Your task to perform on an android device: Go to display settings Image 0: 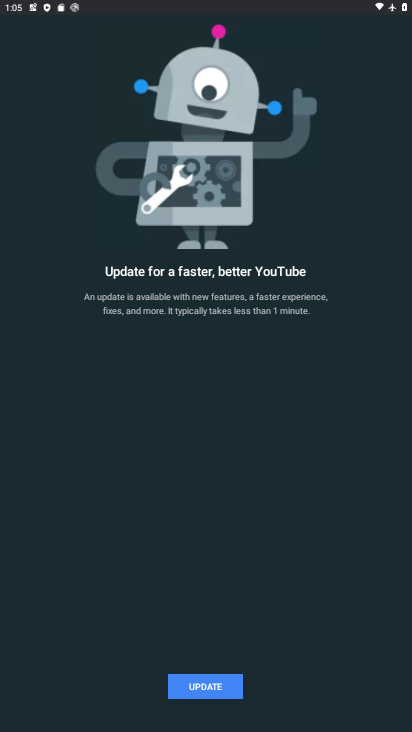
Step 0: press back button
Your task to perform on an android device: Go to display settings Image 1: 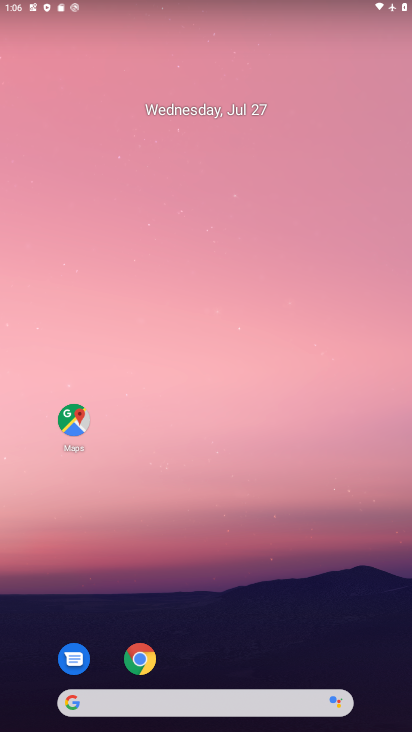
Step 1: drag from (193, 646) to (183, 103)
Your task to perform on an android device: Go to display settings Image 2: 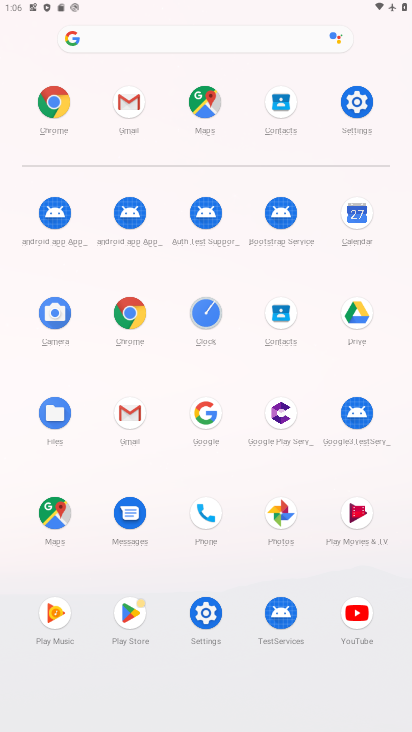
Step 2: click (348, 116)
Your task to perform on an android device: Go to display settings Image 3: 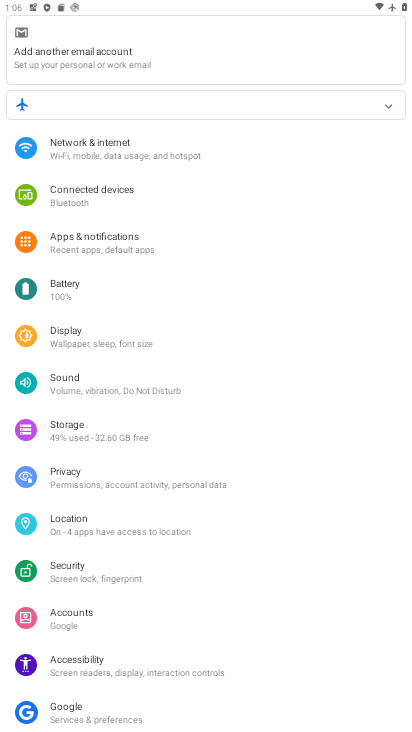
Step 3: click (103, 341)
Your task to perform on an android device: Go to display settings Image 4: 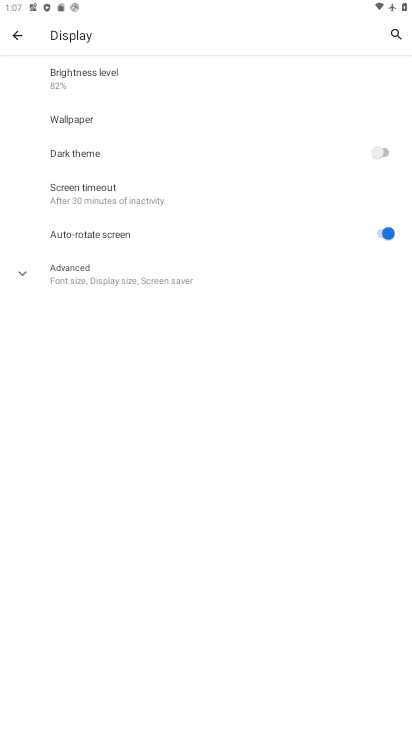
Step 4: task complete